Your task to perform on an android device: Open settings Image 0: 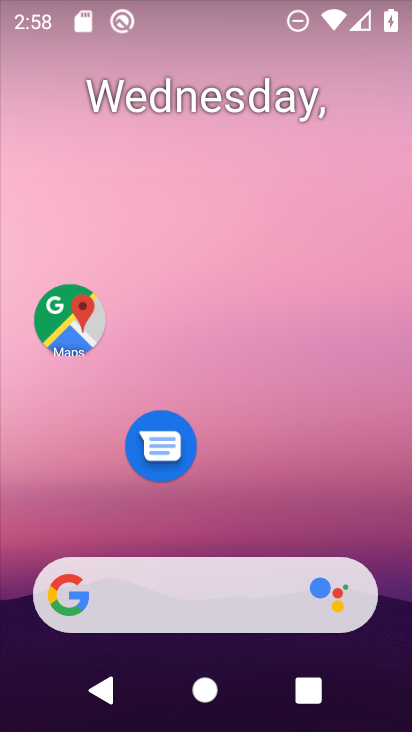
Step 0: drag from (330, 536) to (384, 103)
Your task to perform on an android device: Open settings Image 1: 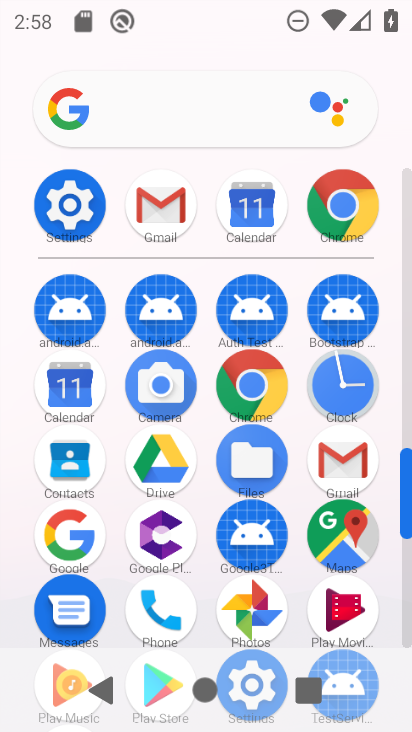
Step 1: click (93, 221)
Your task to perform on an android device: Open settings Image 2: 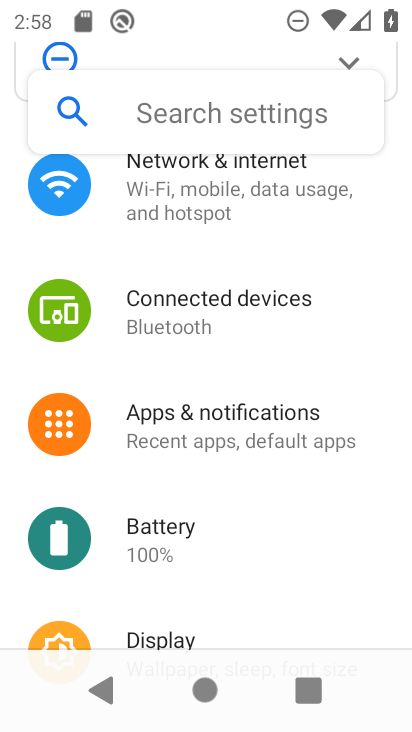
Step 2: task complete